Your task to perform on an android device: turn vacation reply on in the gmail app Image 0: 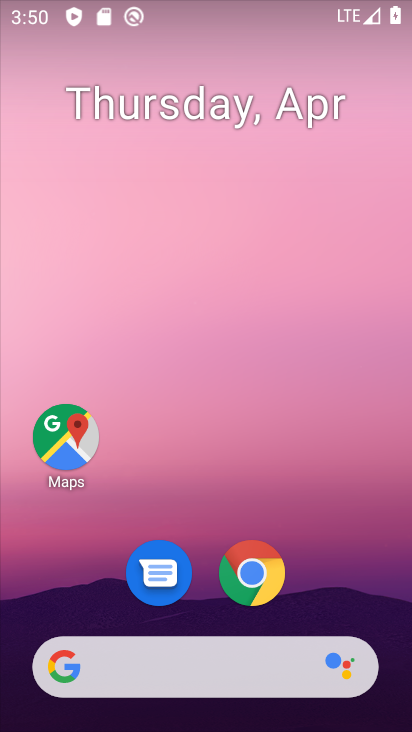
Step 0: drag from (346, 604) to (246, 95)
Your task to perform on an android device: turn vacation reply on in the gmail app Image 1: 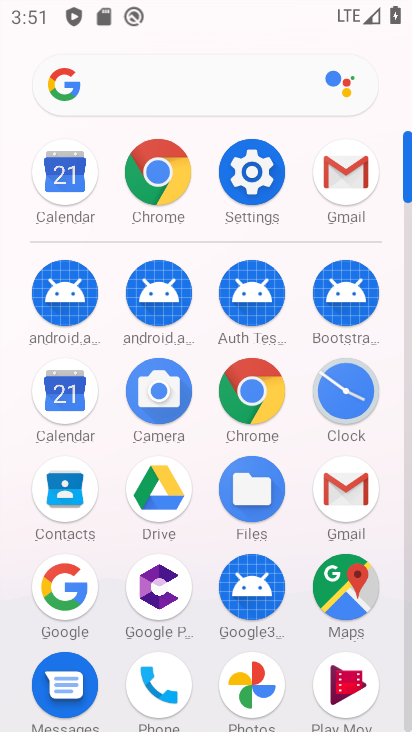
Step 1: click (335, 491)
Your task to perform on an android device: turn vacation reply on in the gmail app Image 2: 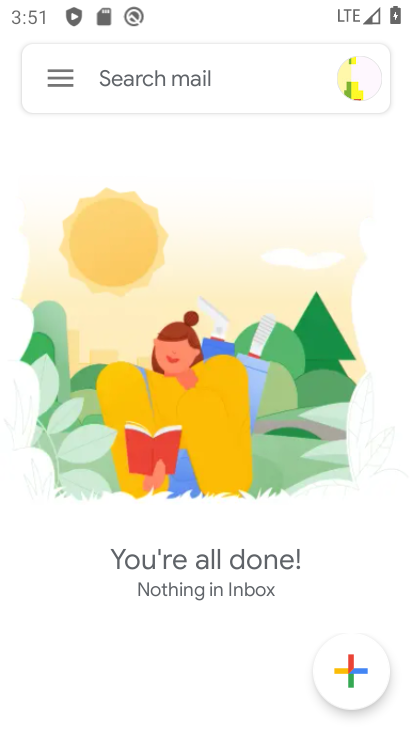
Step 2: click (56, 88)
Your task to perform on an android device: turn vacation reply on in the gmail app Image 3: 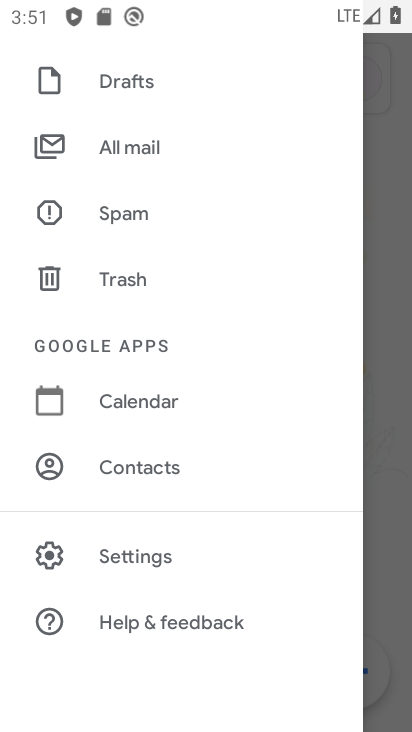
Step 3: click (179, 554)
Your task to perform on an android device: turn vacation reply on in the gmail app Image 4: 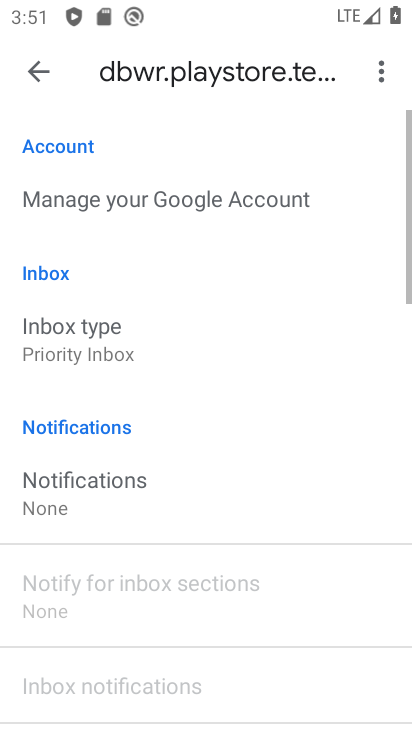
Step 4: drag from (173, 613) to (245, 99)
Your task to perform on an android device: turn vacation reply on in the gmail app Image 5: 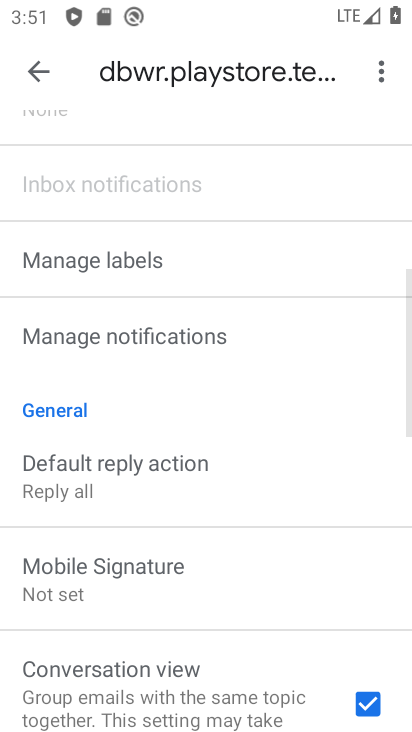
Step 5: drag from (183, 665) to (238, 134)
Your task to perform on an android device: turn vacation reply on in the gmail app Image 6: 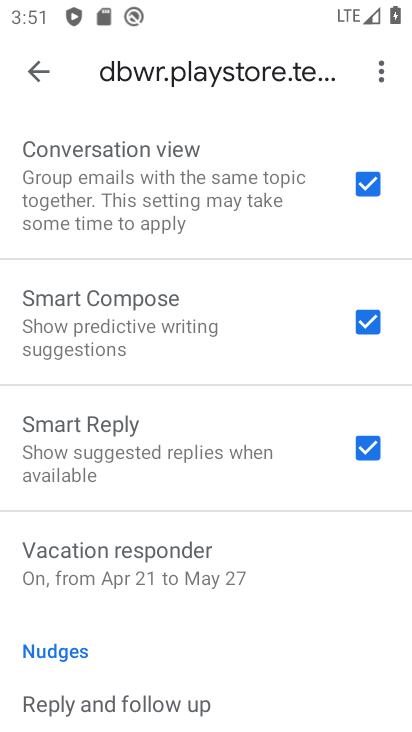
Step 6: click (176, 572)
Your task to perform on an android device: turn vacation reply on in the gmail app Image 7: 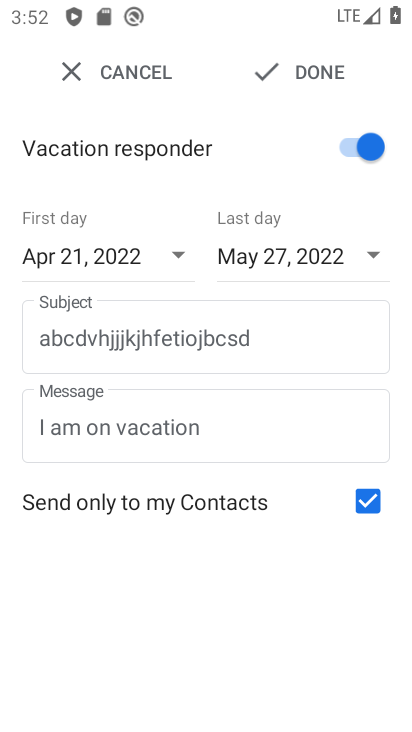
Step 7: task complete